Your task to perform on an android device: turn on wifi Image 0: 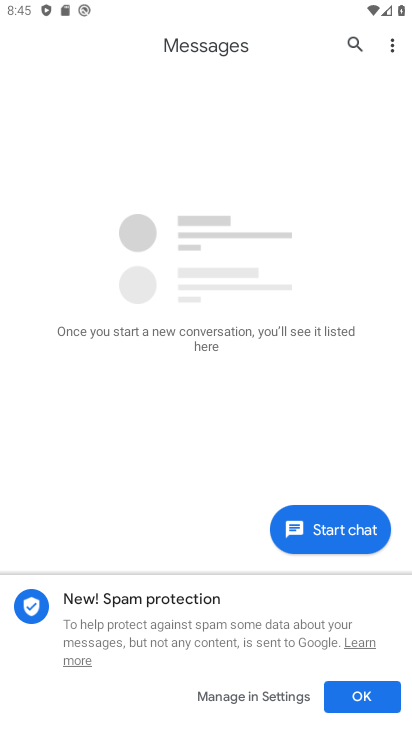
Step 0: press home button
Your task to perform on an android device: turn on wifi Image 1: 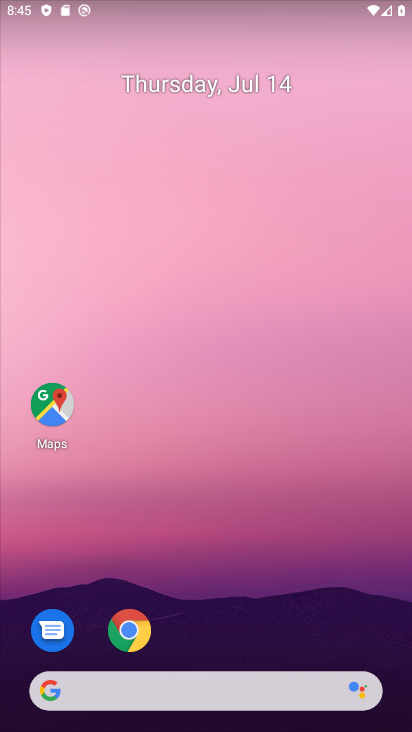
Step 1: drag from (193, 660) to (381, 601)
Your task to perform on an android device: turn on wifi Image 2: 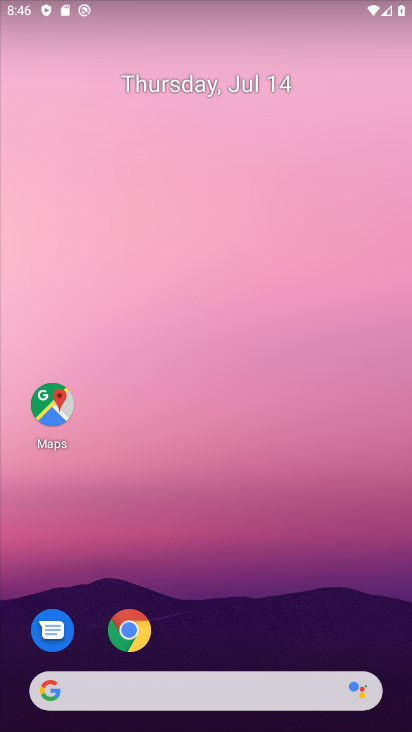
Step 2: drag from (232, 645) to (126, 50)
Your task to perform on an android device: turn on wifi Image 3: 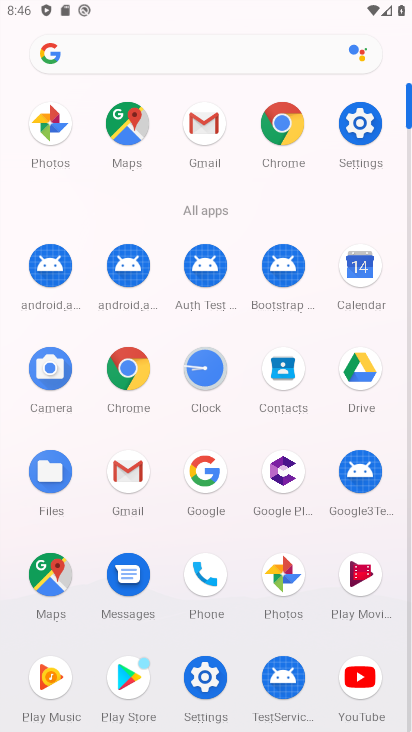
Step 3: click (364, 145)
Your task to perform on an android device: turn on wifi Image 4: 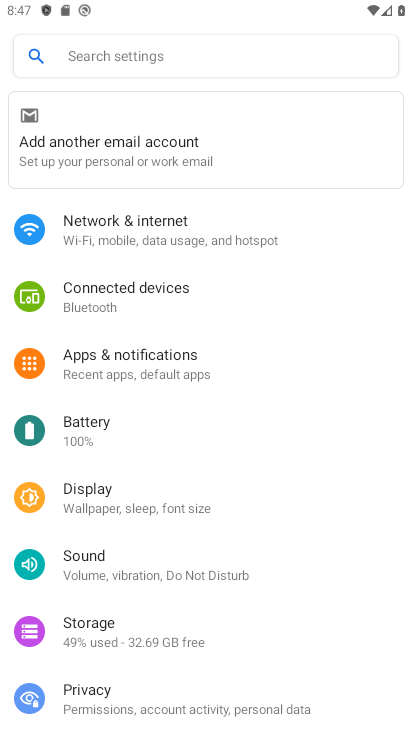
Step 4: click (117, 252)
Your task to perform on an android device: turn on wifi Image 5: 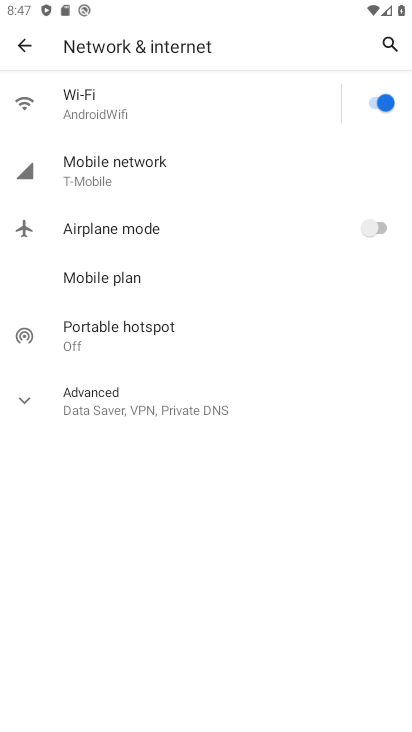
Step 5: click (193, 82)
Your task to perform on an android device: turn on wifi Image 6: 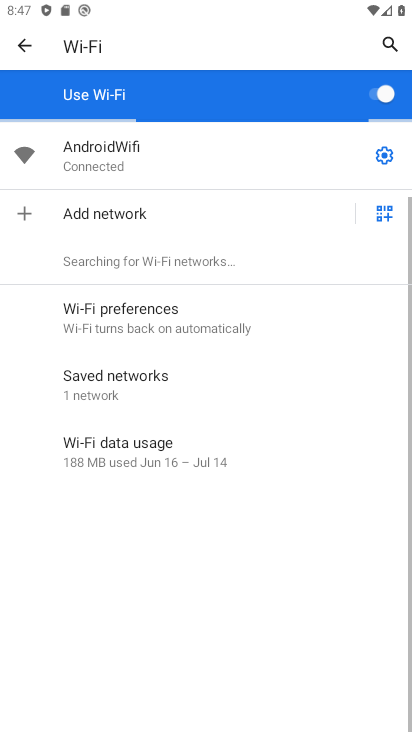
Step 6: click (193, 82)
Your task to perform on an android device: turn on wifi Image 7: 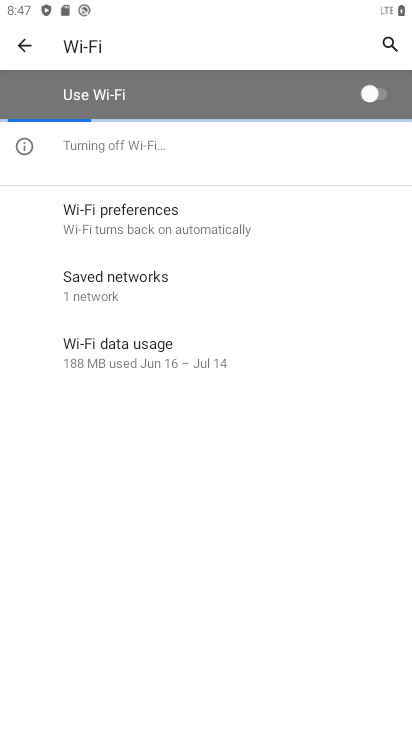
Step 7: task complete